Your task to perform on an android device: Go to Google Image 0: 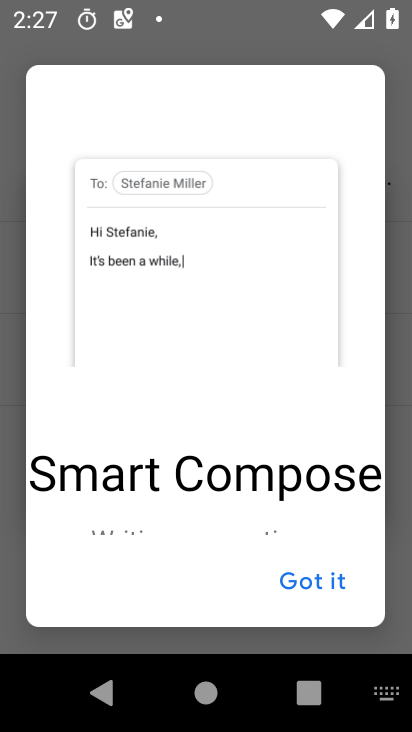
Step 0: press home button
Your task to perform on an android device: Go to Google Image 1: 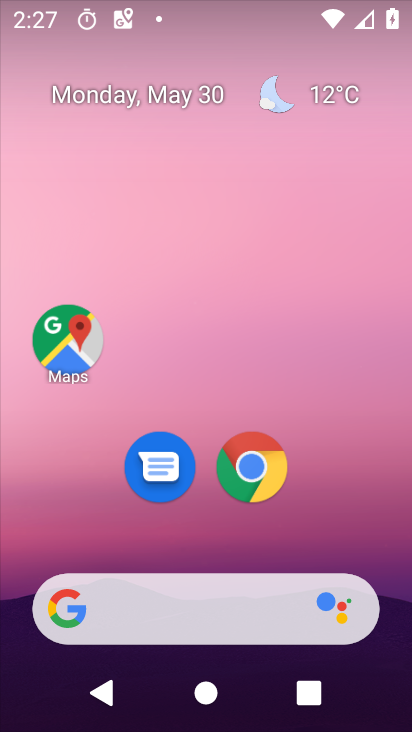
Step 1: drag from (384, 691) to (356, 214)
Your task to perform on an android device: Go to Google Image 2: 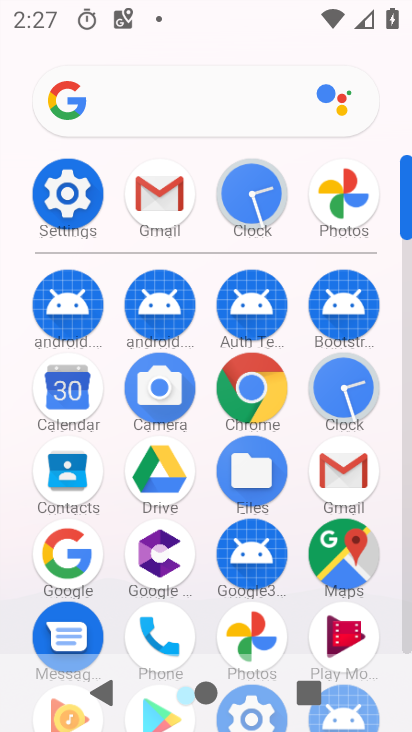
Step 2: click (56, 553)
Your task to perform on an android device: Go to Google Image 3: 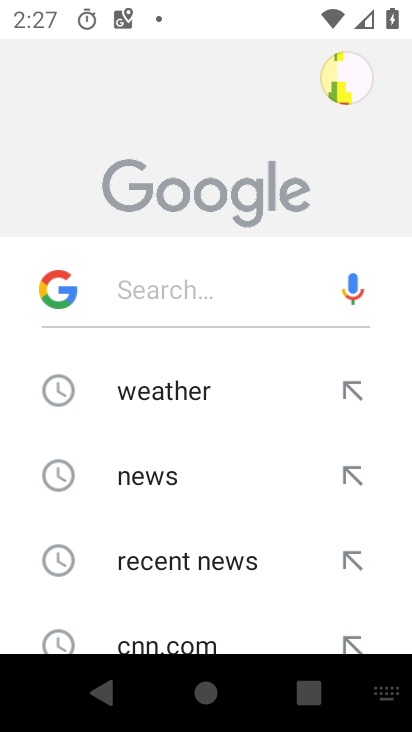
Step 3: task complete